Your task to perform on an android device: turn off wifi Image 0: 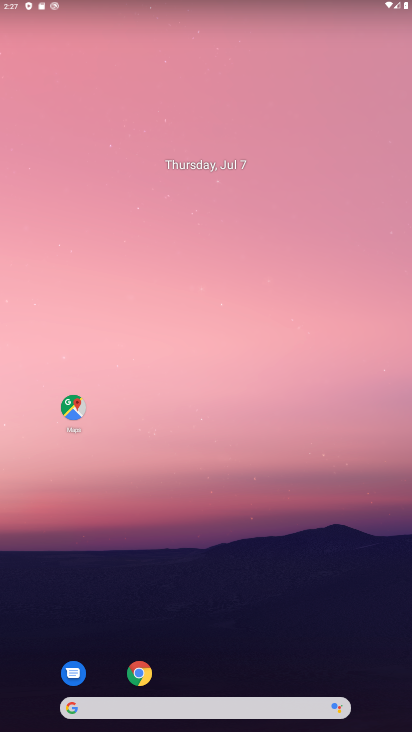
Step 0: drag from (217, 622) to (236, 100)
Your task to perform on an android device: turn off wifi Image 1: 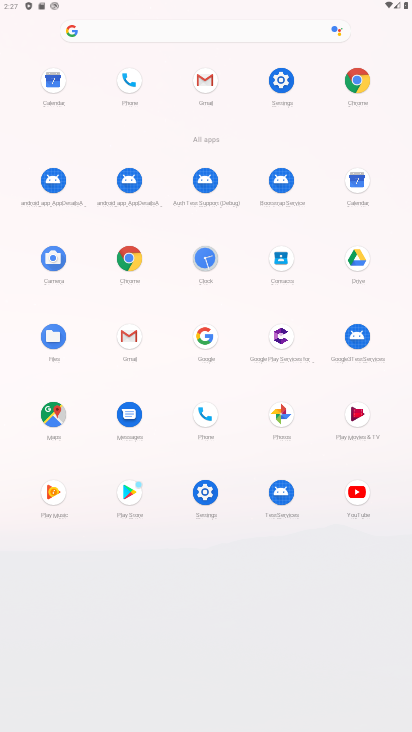
Step 1: drag from (254, 8) to (228, 612)
Your task to perform on an android device: turn off wifi Image 2: 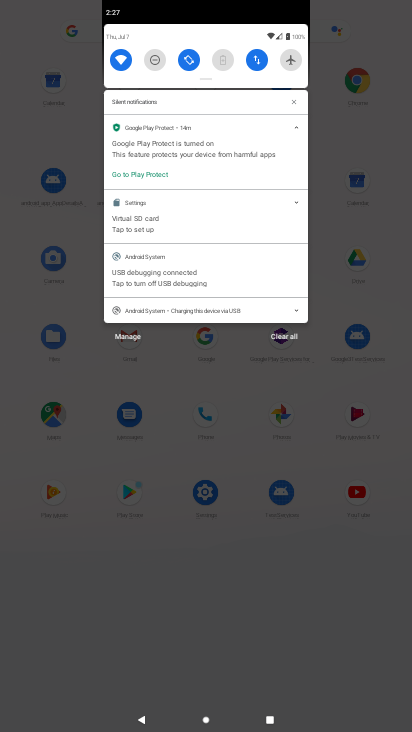
Step 2: click (123, 61)
Your task to perform on an android device: turn off wifi Image 3: 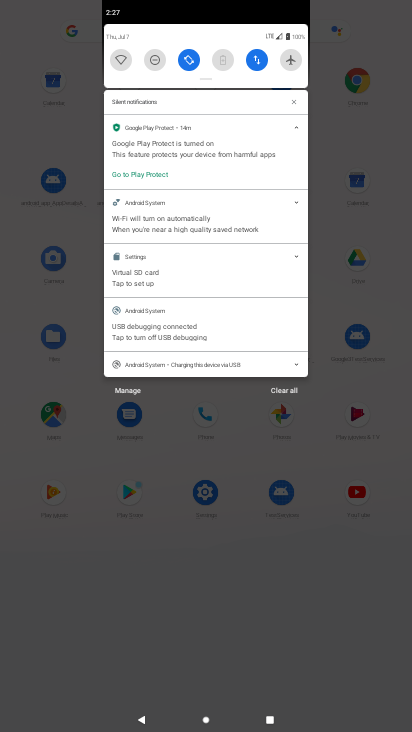
Step 3: task complete